Your task to perform on an android device: check the backup settings in the google photos Image 0: 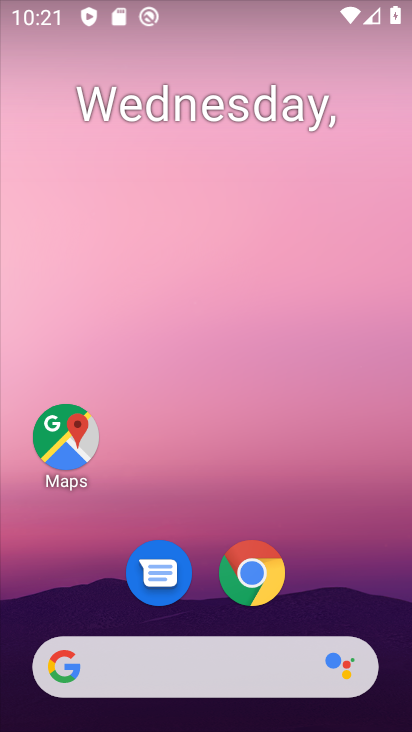
Step 0: click (306, 108)
Your task to perform on an android device: check the backup settings in the google photos Image 1: 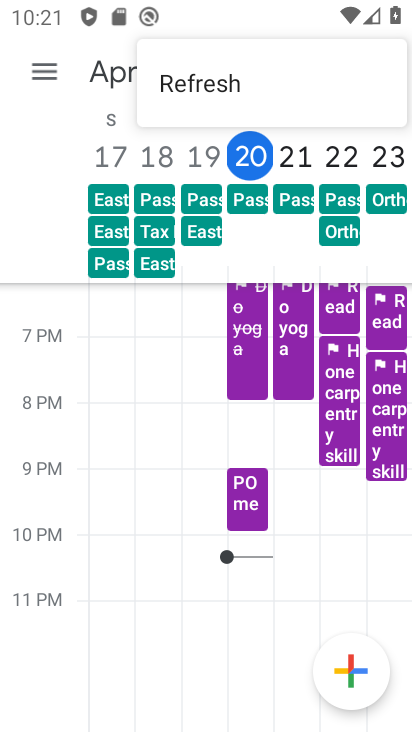
Step 1: press home button
Your task to perform on an android device: check the backup settings in the google photos Image 2: 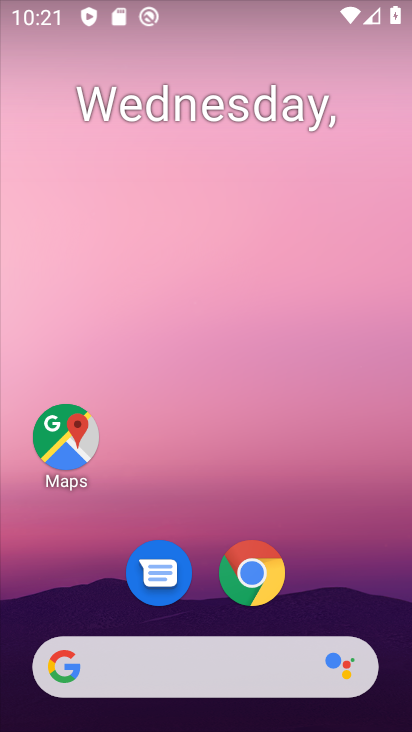
Step 2: drag from (345, 593) to (339, 104)
Your task to perform on an android device: check the backup settings in the google photos Image 3: 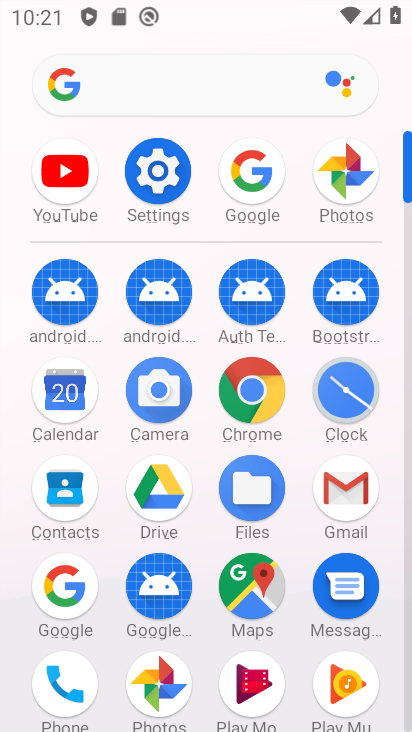
Step 3: click (177, 658)
Your task to perform on an android device: check the backup settings in the google photos Image 4: 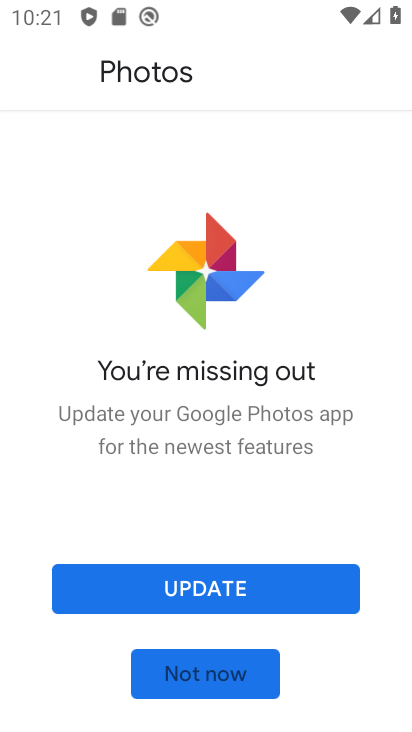
Step 4: click (217, 592)
Your task to perform on an android device: check the backup settings in the google photos Image 5: 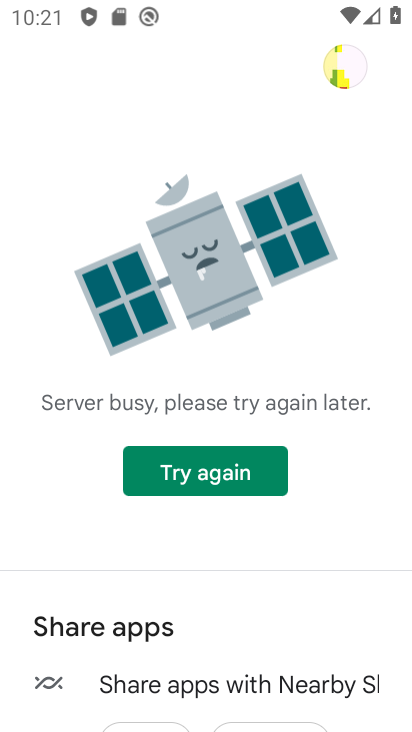
Step 5: click (240, 459)
Your task to perform on an android device: check the backup settings in the google photos Image 6: 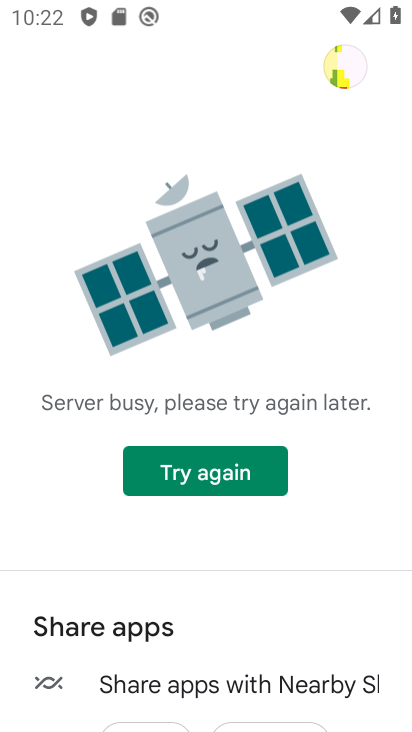
Step 6: click (240, 461)
Your task to perform on an android device: check the backup settings in the google photos Image 7: 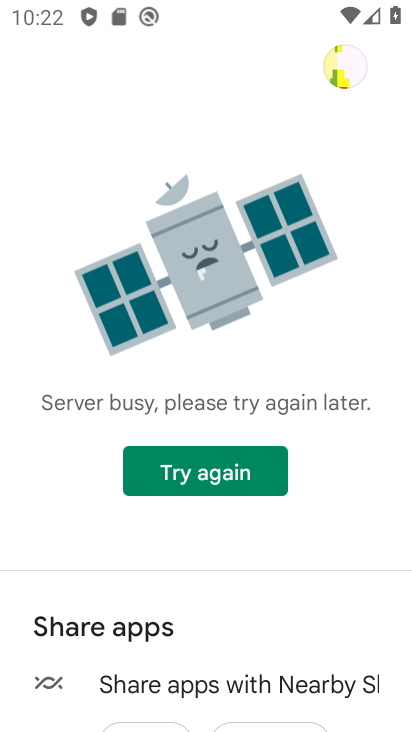
Step 7: click (240, 461)
Your task to perform on an android device: check the backup settings in the google photos Image 8: 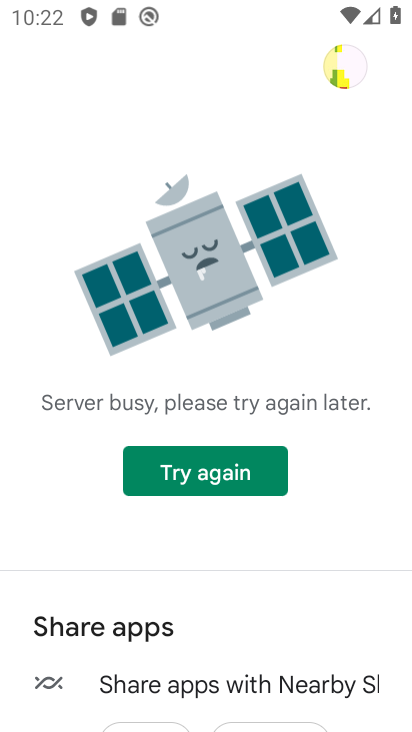
Step 8: click (240, 463)
Your task to perform on an android device: check the backup settings in the google photos Image 9: 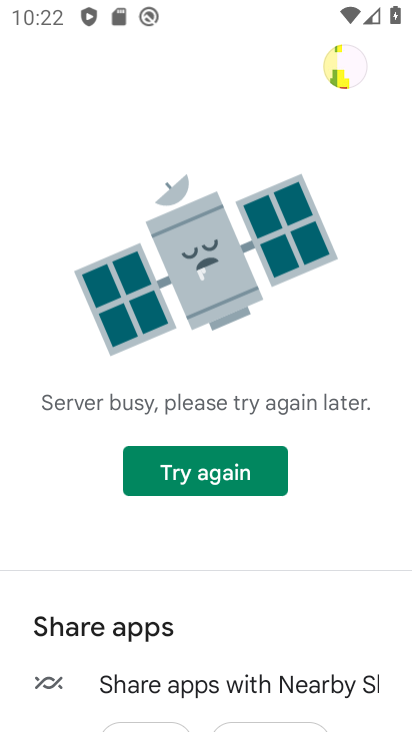
Step 9: click (240, 463)
Your task to perform on an android device: check the backup settings in the google photos Image 10: 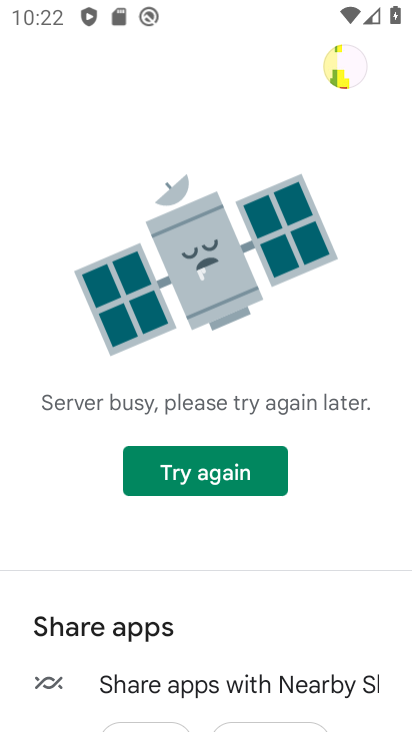
Step 10: click (240, 463)
Your task to perform on an android device: check the backup settings in the google photos Image 11: 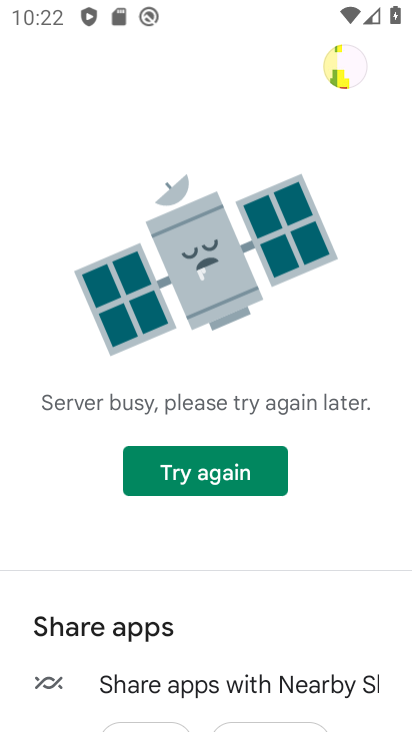
Step 11: click (240, 463)
Your task to perform on an android device: check the backup settings in the google photos Image 12: 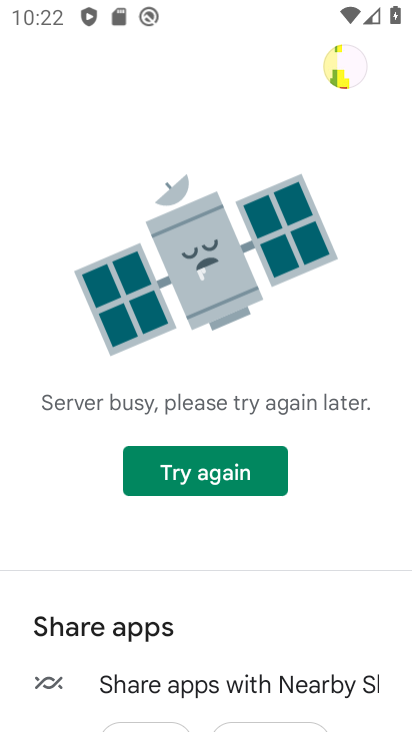
Step 12: task complete